Your task to perform on an android device: find photos in the google photos app Image 0: 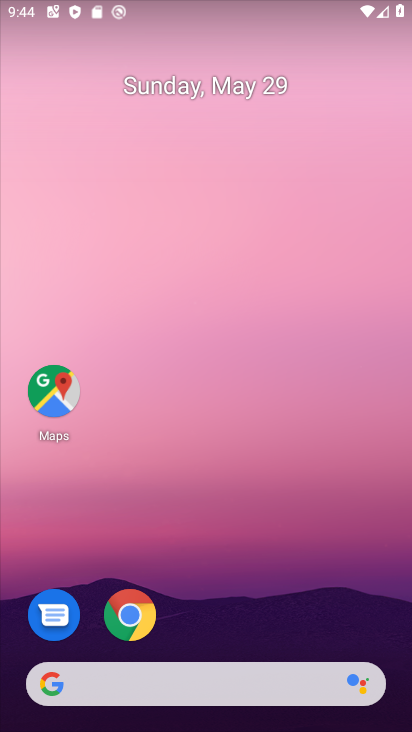
Step 0: drag from (217, 645) to (183, 122)
Your task to perform on an android device: find photos in the google photos app Image 1: 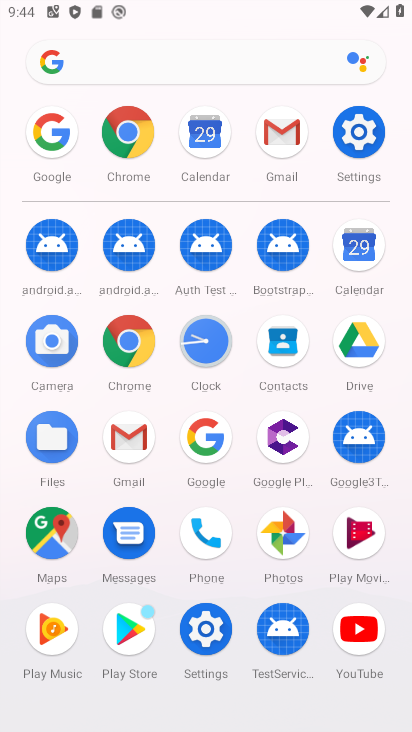
Step 1: click (284, 530)
Your task to perform on an android device: find photos in the google photos app Image 2: 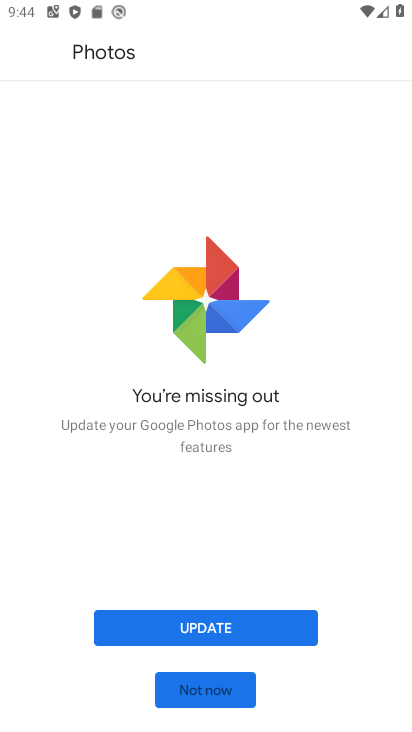
Step 2: click (208, 696)
Your task to perform on an android device: find photos in the google photos app Image 3: 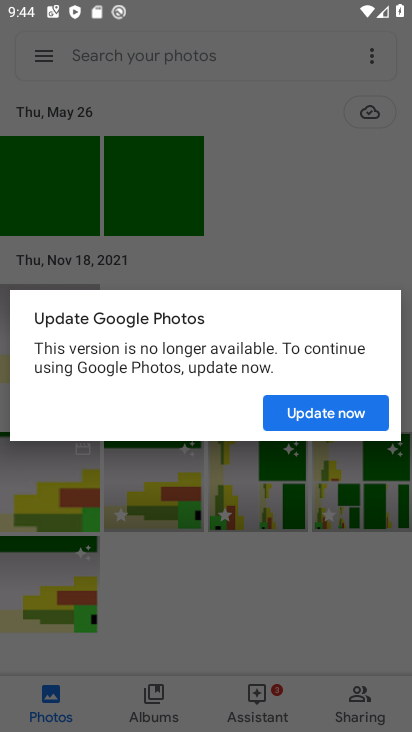
Step 3: click (282, 406)
Your task to perform on an android device: find photos in the google photos app Image 4: 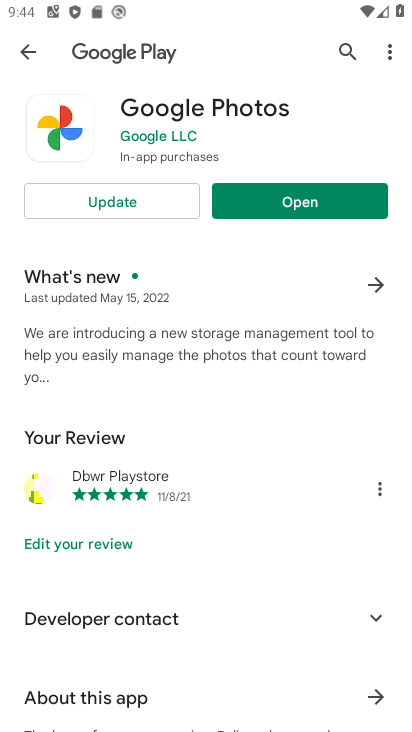
Step 4: click (316, 194)
Your task to perform on an android device: find photos in the google photos app Image 5: 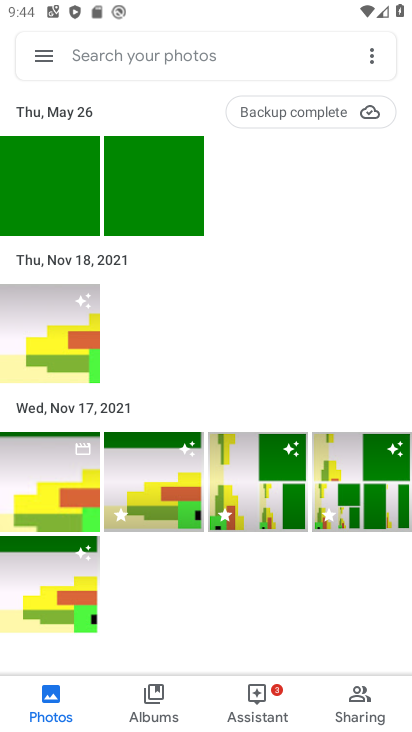
Step 5: task complete